Your task to perform on an android device: clear history in the chrome app Image 0: 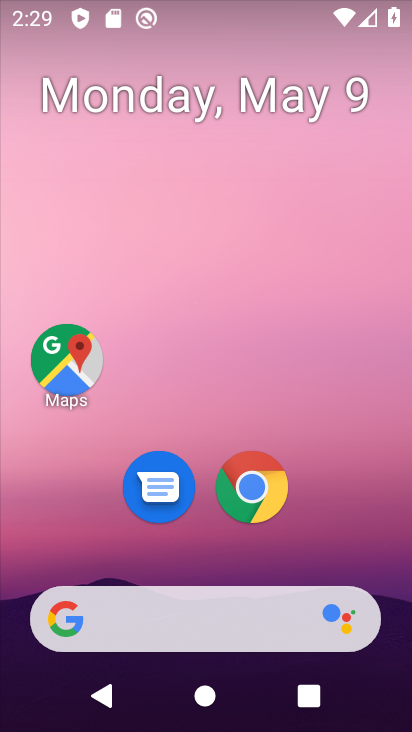
Step 0: click (260, 490)
Your task to perform on an android device: clear history in the chrome app Image 1: 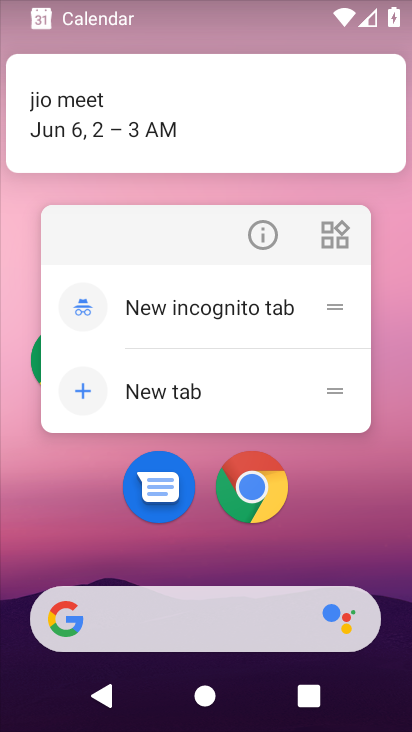
Step 1: click (260, 490)
Your task to perform on an android device: clear history in the chrome app Image 2: 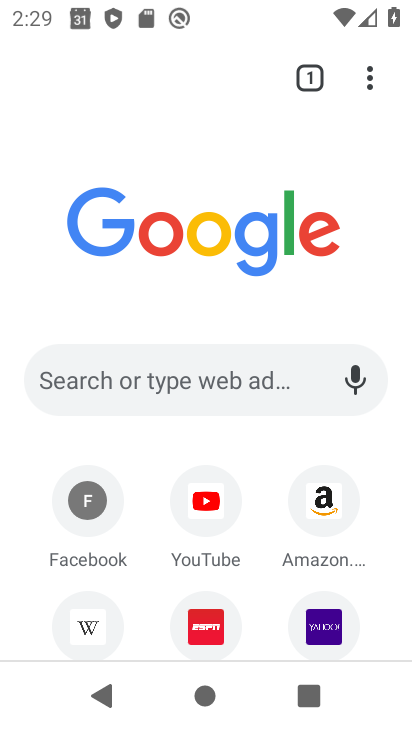
Step 2: click (364, 72)
Your task to perform on an android device: clear history in the chrome app Image 3: 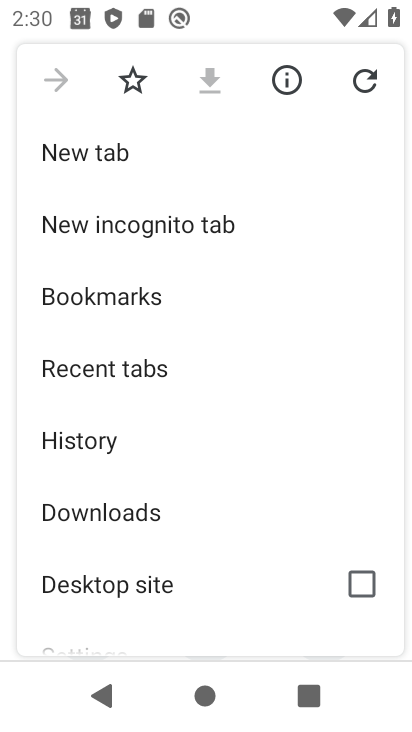
Step 3: click (134, 439)
Your task to perform on an android device: clear history in the chrome app Image 4: 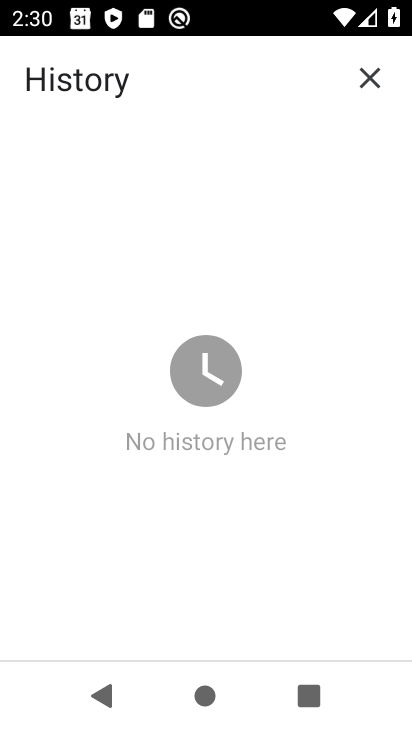
Step 4: task complete